Your task to perform on an android device: Go to settings Image 0: 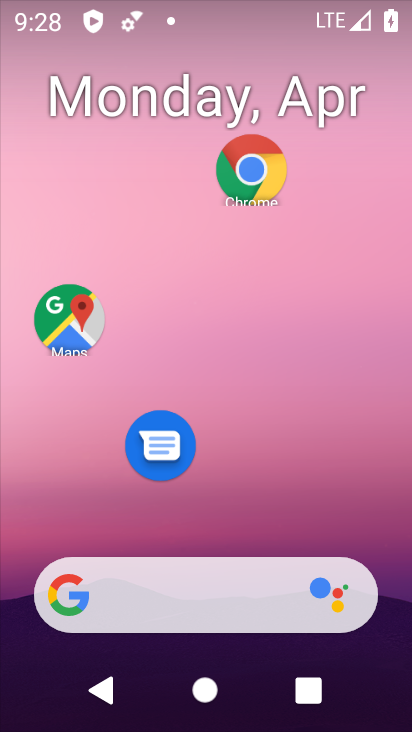
Step 0: drag from (214, 421) to (204, 75)
Your task to perform on an android device: Go to settings Image 1: 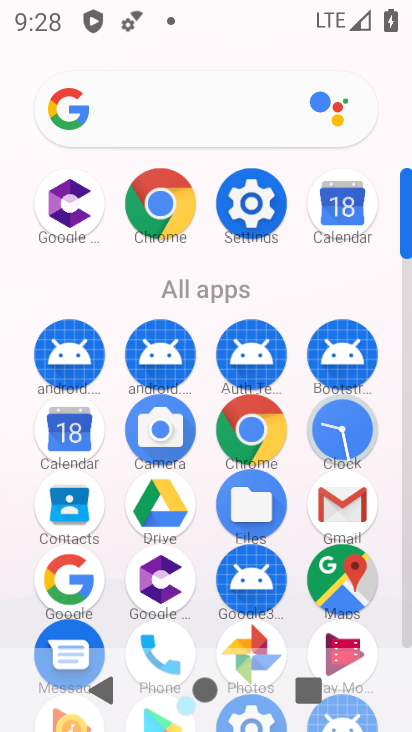
Step 1: click (249, 204)
Your task to perform on an android device: Go to settings Image 2: 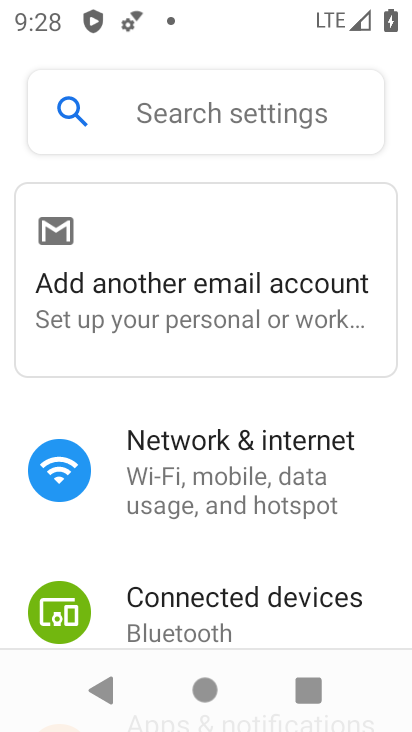
Step 2: task complete